Your task to perform on an android device: add a contact Image 0: 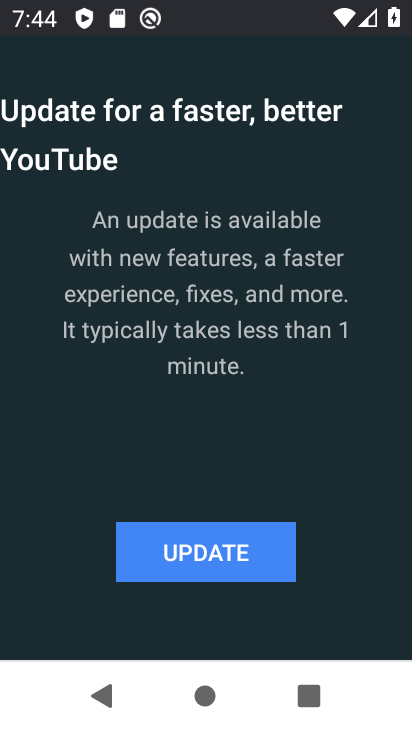
Step 0: press home button
Your task to perform on an android device: add a contact Image 1: 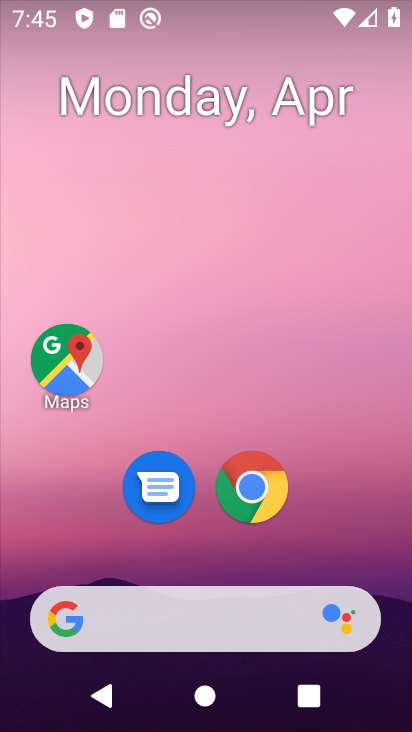
Step 1: drag from (344, 417) to (348, 67)
Your task to perform on an android device: add a contact Image 2: 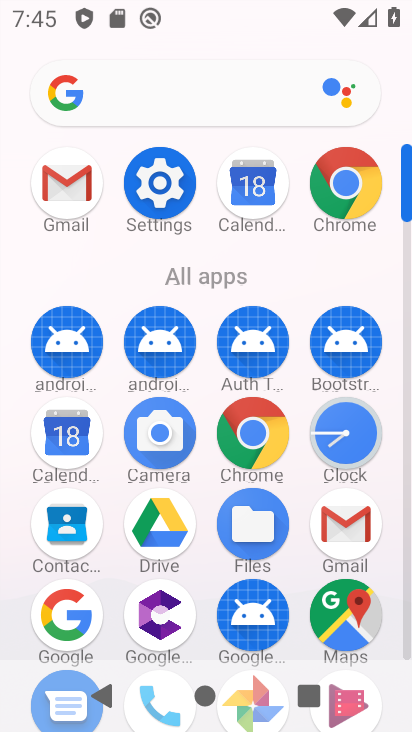
Step 2: click (60, 540)
Your task to perform on an android device: add a contact Image 3: 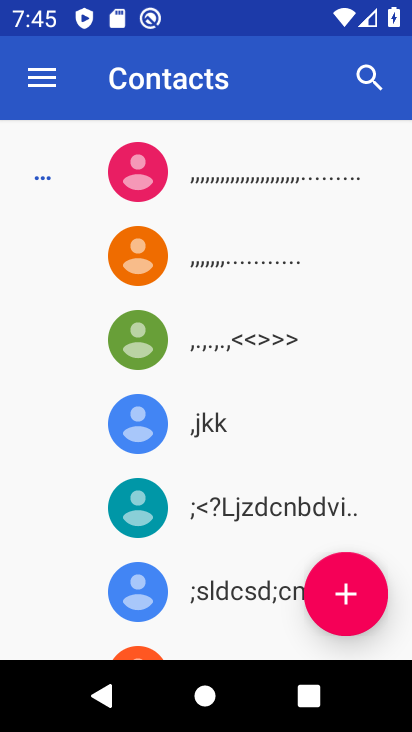
Step 3: click (351, 593)
Your task to perform on an android device: add a contact Image 4: 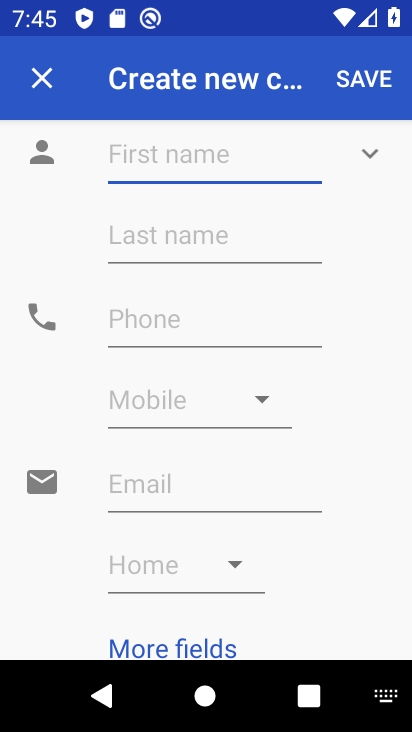
Step 4: click (183, 164)
Your task to perform on an android device: add a contact Image 5: 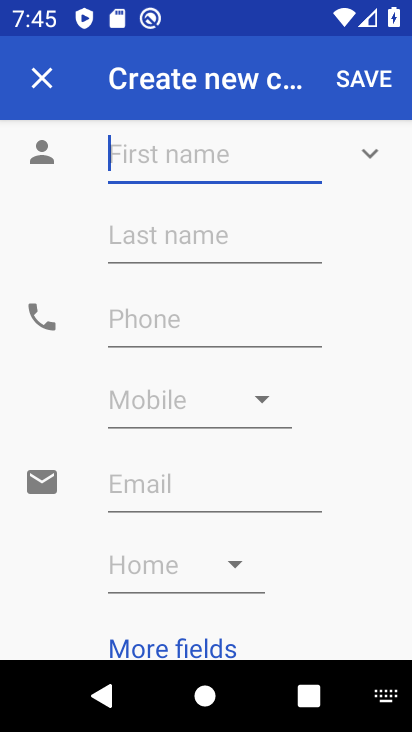
Step 5: type "pooo"
Your task to perform on an android device: add a contact Image 6: 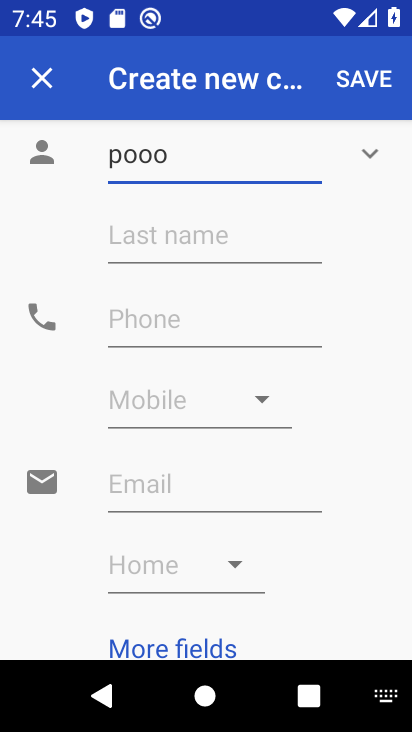
Step 6: click (208, 332)
Your task to perform on an android device: add a contact Image 7: 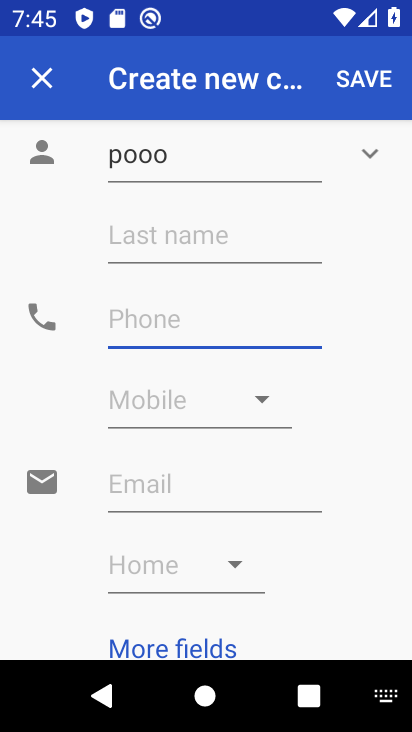
Step 7: type "1234567890"
Your task to perform on an android device: add a contact Image 8: 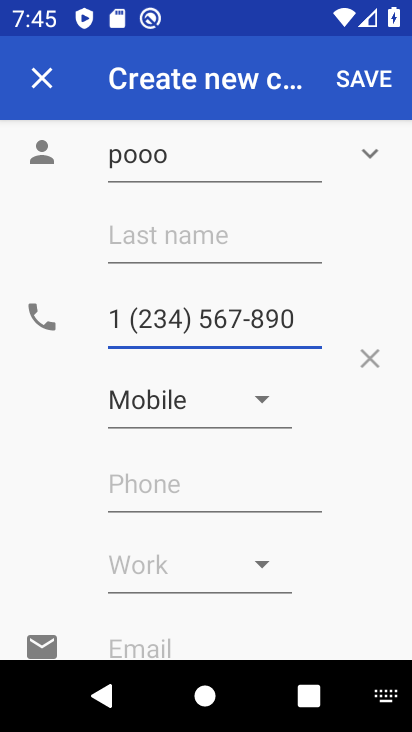
Step 8: click (365, 81)
Your task to perform on an android device: add a contact Image 9: 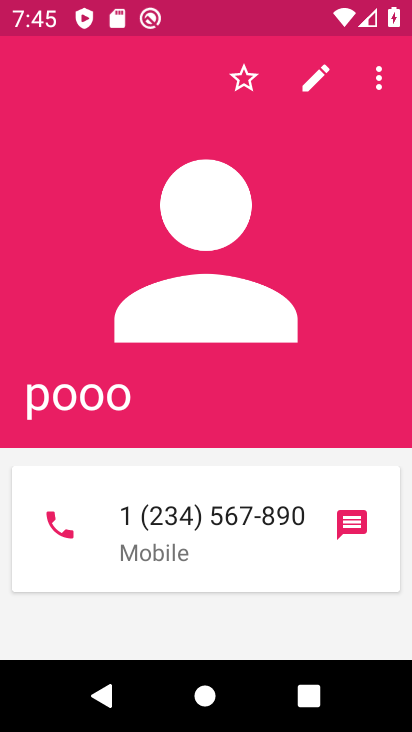
Step 9: task complete